Your task to perform on an android device: turn off smart reply in the gmail app Image 0: 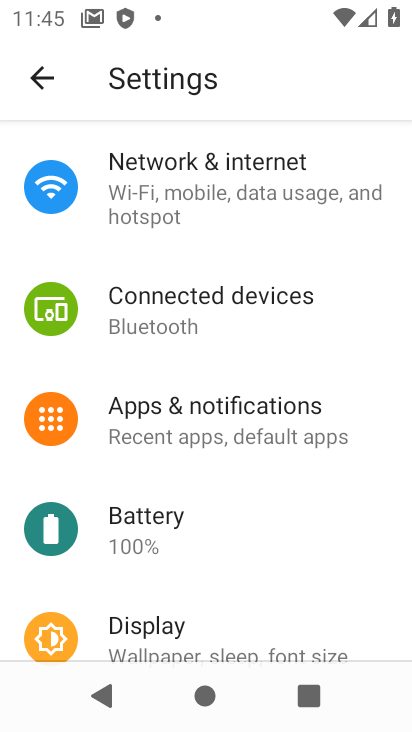
Step 0: press back button
Your task to perform on an android device: turn off smart reply in the gmail app Image 1: 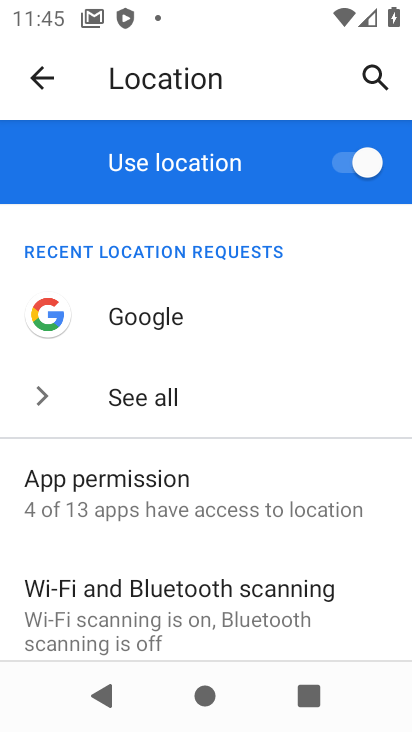
Step 1: press back button
Your task to perform on an android device: turn off smart reply in the gmail app Image 2: 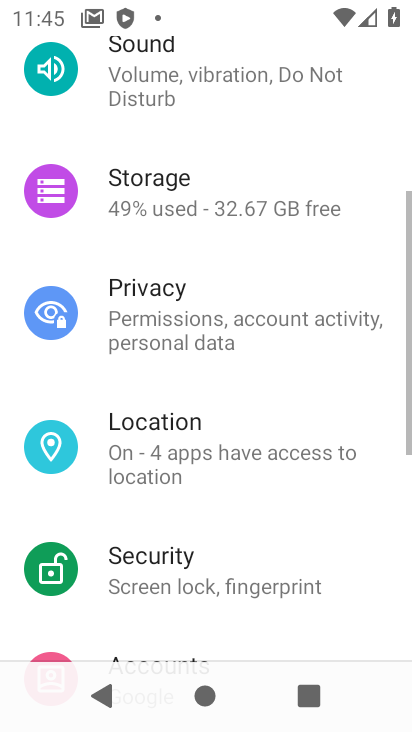
Step 2: press back button
Your task to perform on an android device: turn off smart reply in the gmail app Image 3: 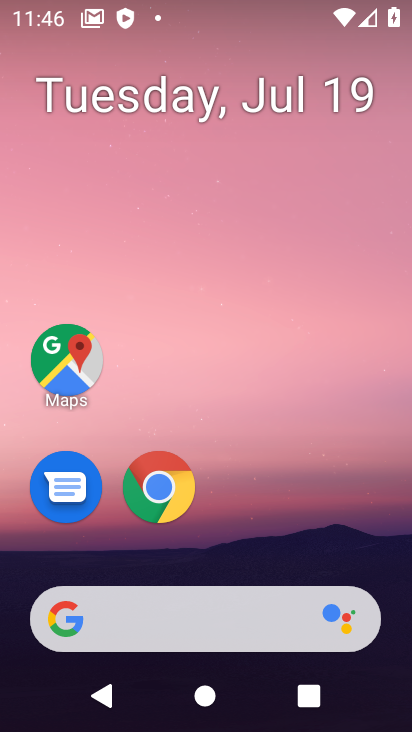
Step 3: drag from (205, 520) to (279, 14)
Your task to perform on an android device: turn off smart reply in the gmail app Image 4: 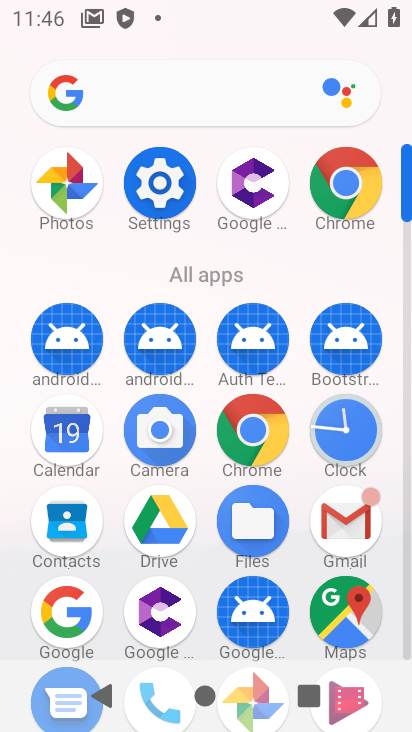
Step 4: click (326, 500)
Your task to perform on an android device: turn off smart reply in the gmail app Image 5: 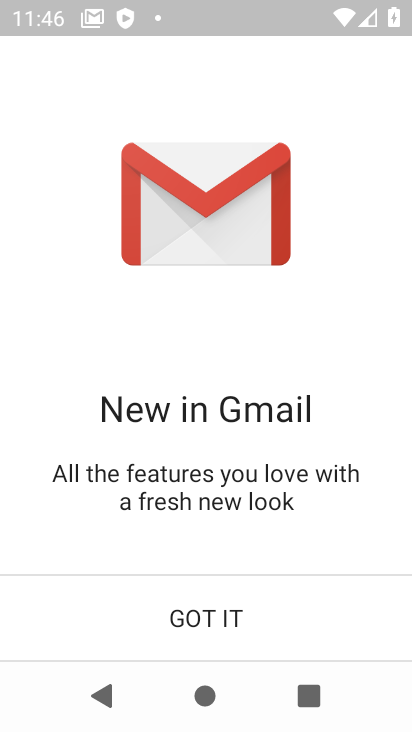
Step 5: click (184, 631)
Your task to perform on an android device: turn off smart reply in the gmail app Image 6: 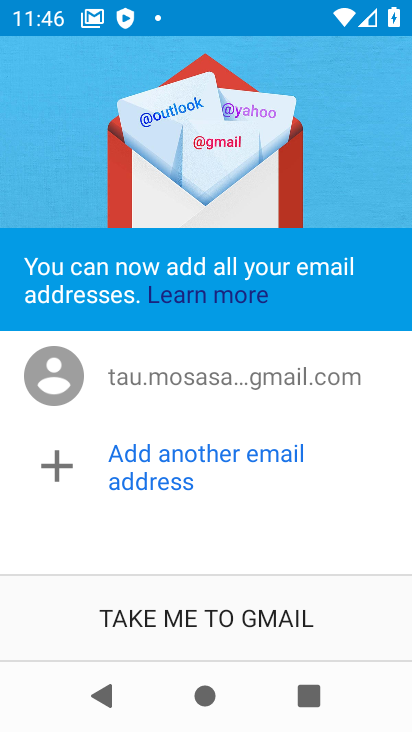
Step 6: click (181, 616)
Your task to perform on an android device: turn off smart reply in the gmail app Image 7: 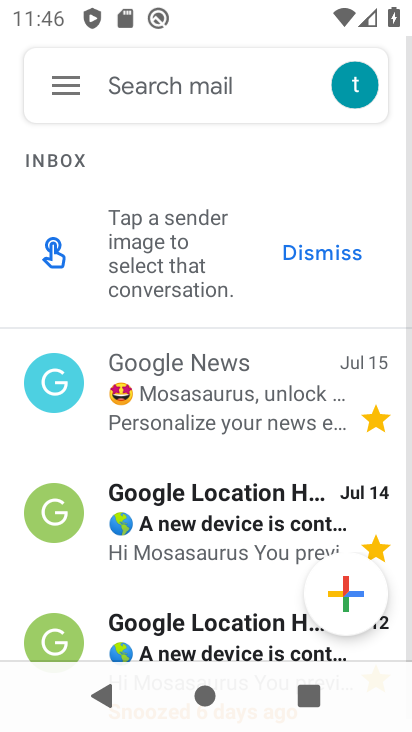
Step 7: click (82, 78)
Your task to perform on an android device: turn off smart reply in the gmail app Image 8: 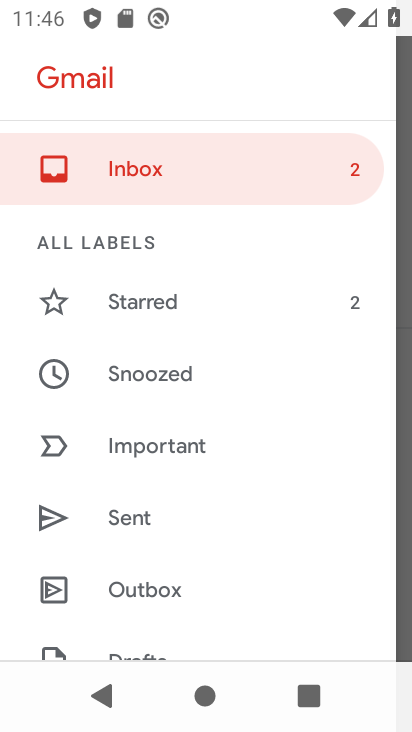
Step 8: drag from (207, 656) to (308, 22)
Your task to perform on an android device: turn off smart reply in the gmail app Image 9: 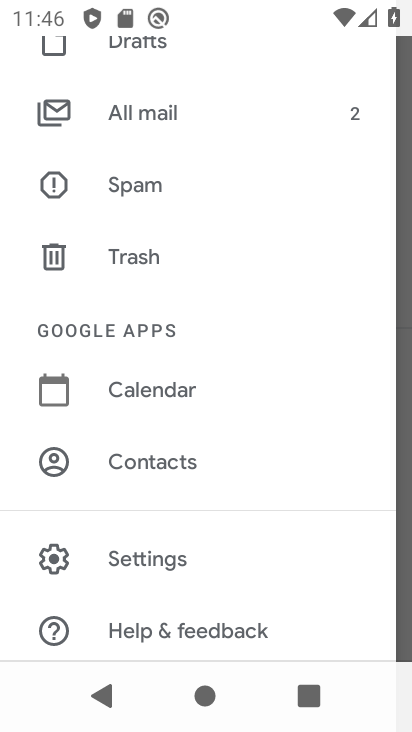
Step 9: click (151, 562)
Your task to perform on an android device: turn off smart reply in the gmail app Image 10: 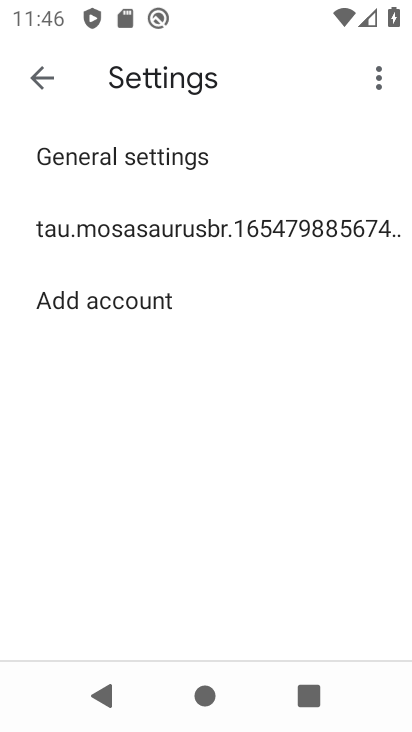
Step 10: click (155, 233)
Your task to perform on an android device: turn off smart reply in the gmail app Image 11: 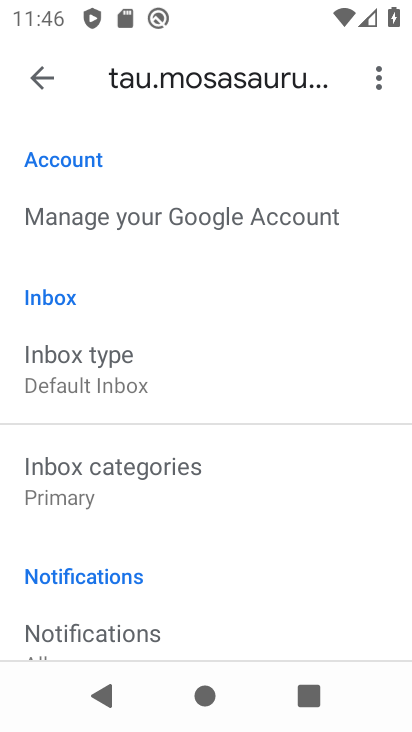
Step 11: drag from (142, 615) to (249, 0)
Your task to perform on an android device: turn off smart reply in the gmail app Image 12: 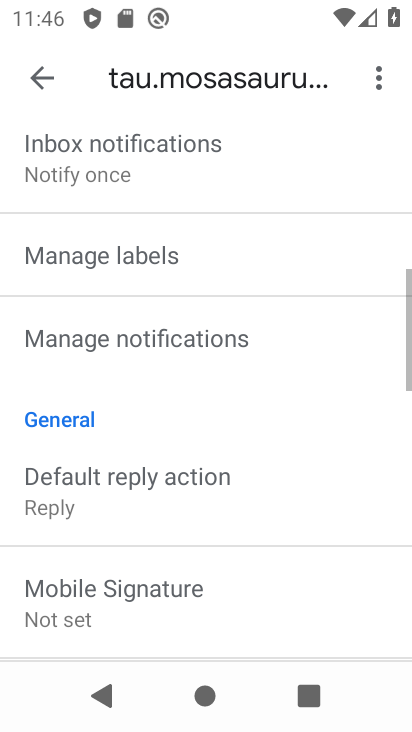
Step 12: drag from (160, 592) to (266, 60)
Your task to perform on an android device: turn off smart reply in the gmail app Image 13: 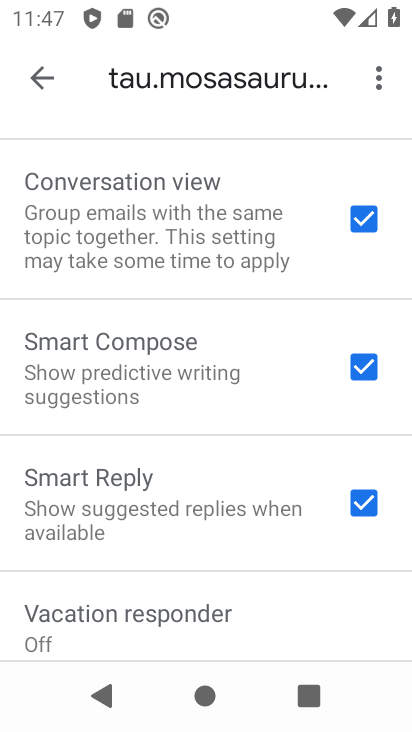
Step 13: click (369, 496)
Your task to perform on an android device: turn off smart reply in the gmail app Image 14: 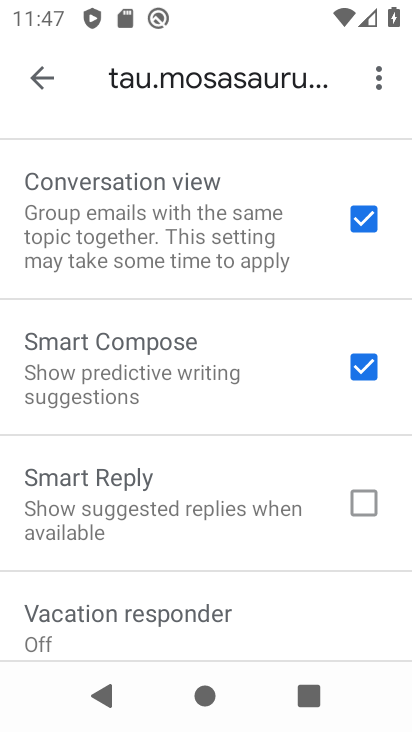
Step 14: task complete